Your task to perform on an android device: move an email to a new category in the gmail app Image 0: 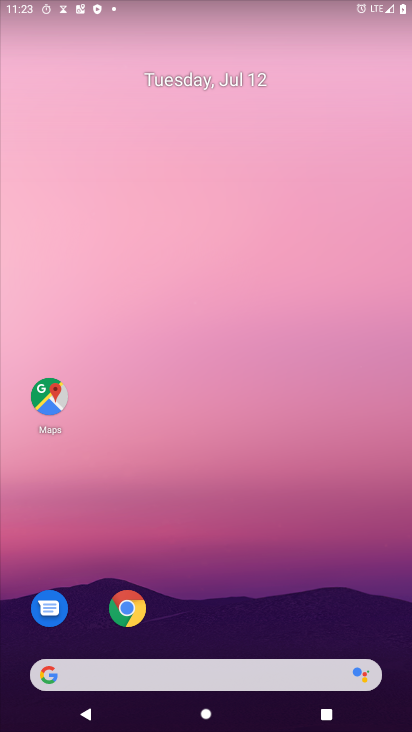
Step 0: drag from (206, 624) to (206, 2)
Your task to perform on an android device: move an email to a new category in the gmail app Image 1: 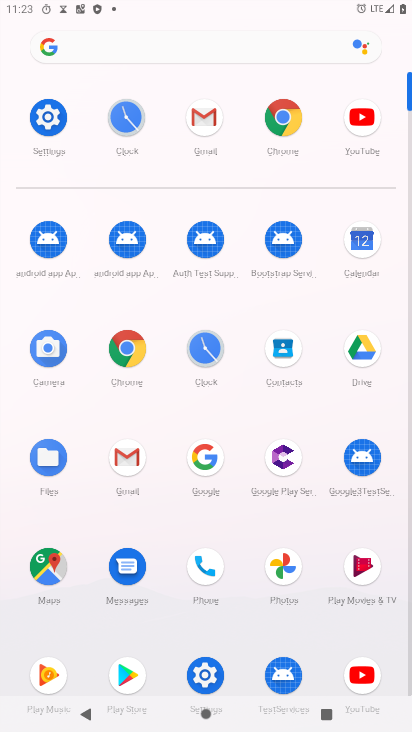
Step 1: click (218, 121)
Your task to perform on an android device: move an email to a new category in the gmail app Image 2: 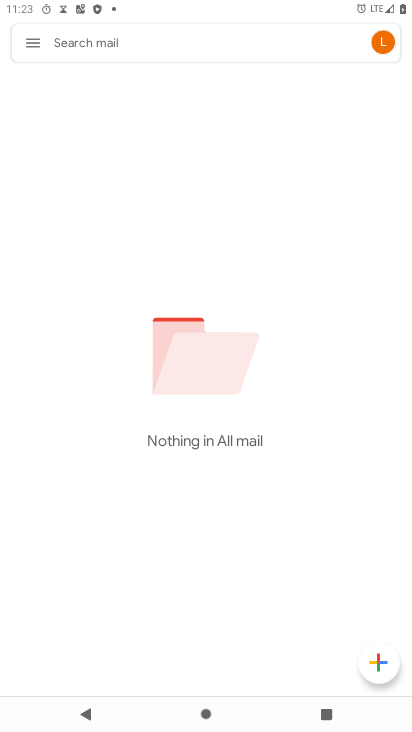
Step 2: task complete